Your task to perform on an android device: What's the news this evening? Image 0: 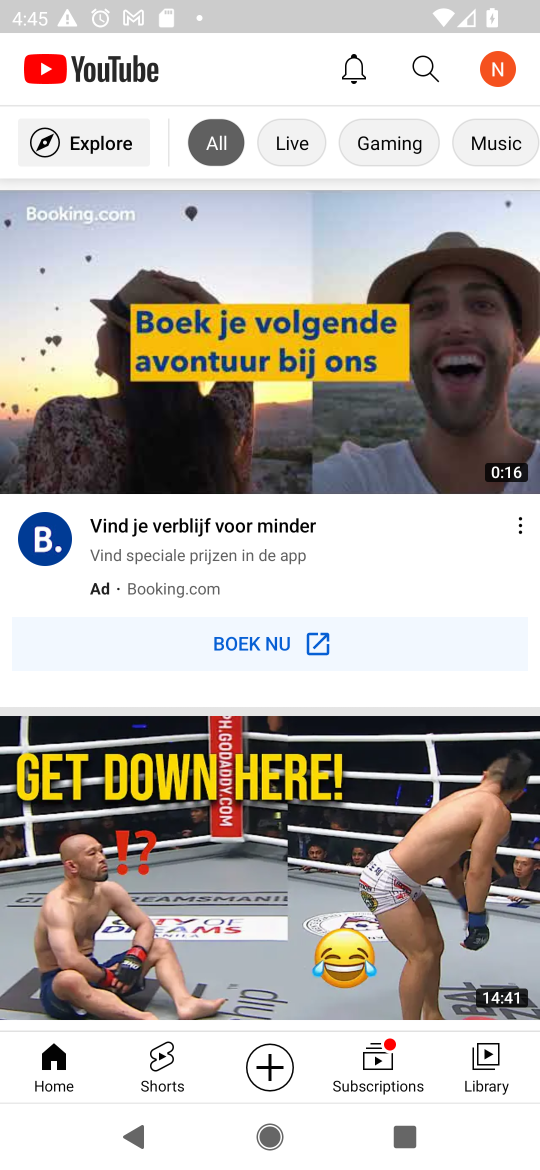
Step 0: press home button
Your task to perform on an android device: What's the news this evening? Image 1: 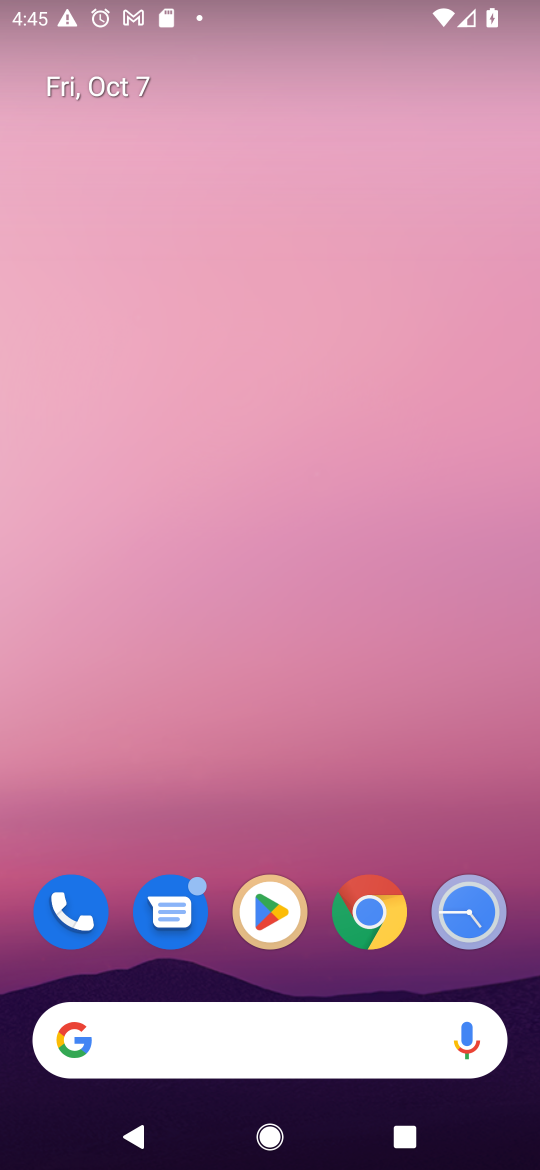
Step 1: drag from (179, 830) to (244, 360)
Your task to perform on an android device: What's the news this evening? Image 2: 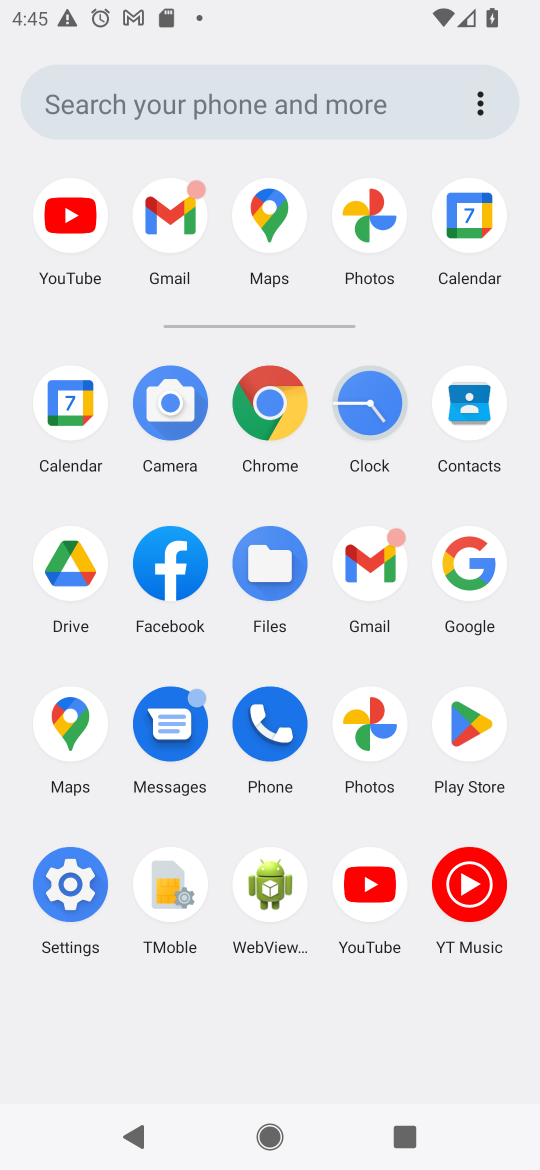
Step 2: click (470, 589)
Your task to perform on an android device: What's the news this evening? Image 3: 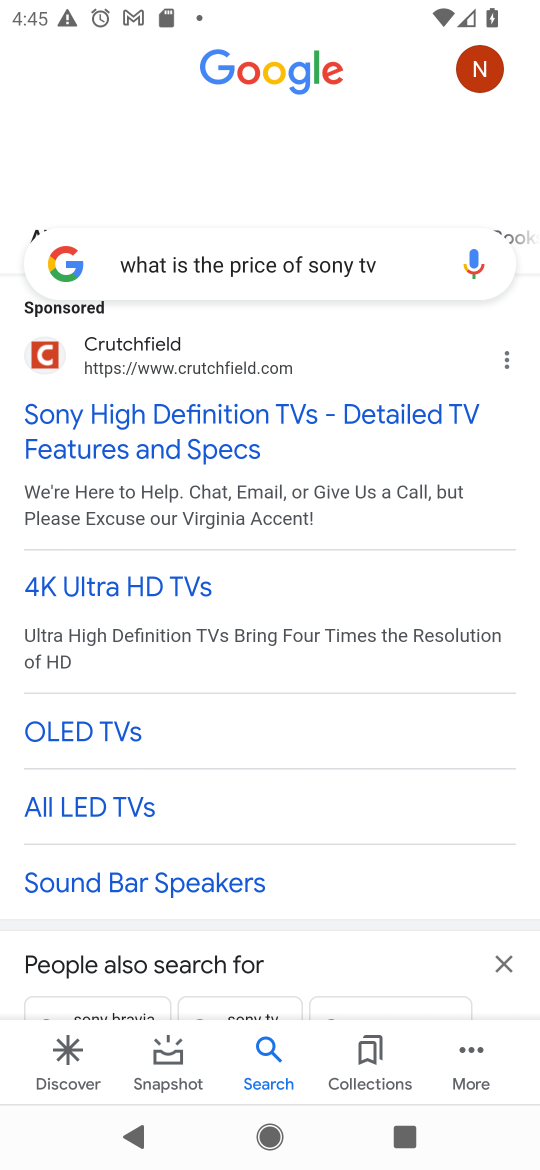
Step 3: click (366, 245)
Your task to perform on an android device: What's the news this evening? Image 4: 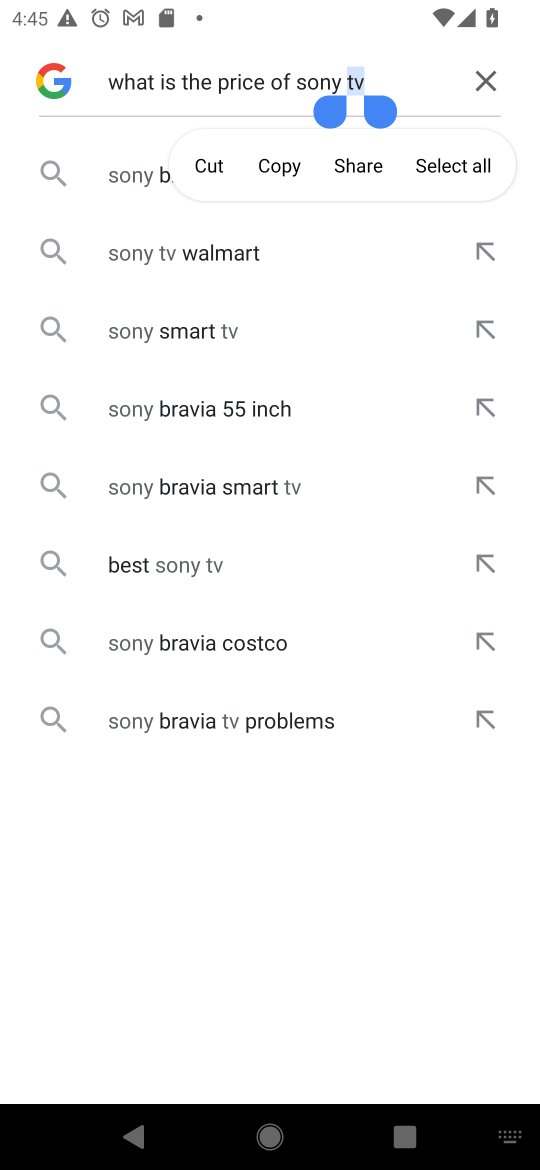
Step 4: click (469, 90)
Your task to perform on an android device: What's the news this evening? Image 5: 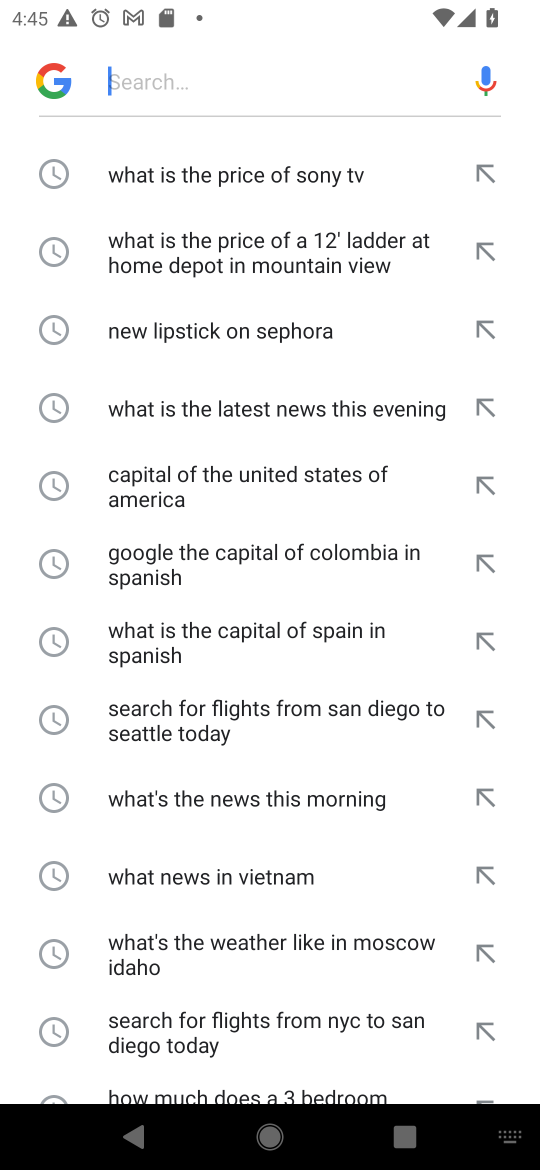
Step 5: click (214, 50)
Your task to perform on an android device: What's the news this evening? Image 6: 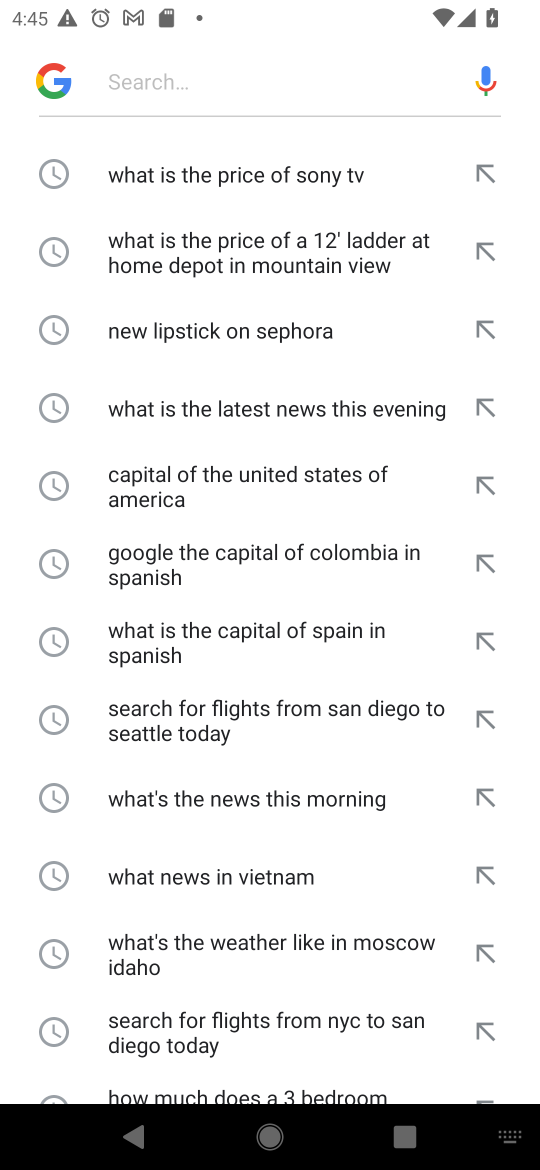
Step 6: type "L"
Your task to perform on an android device: What's the news this evening? Image 7: 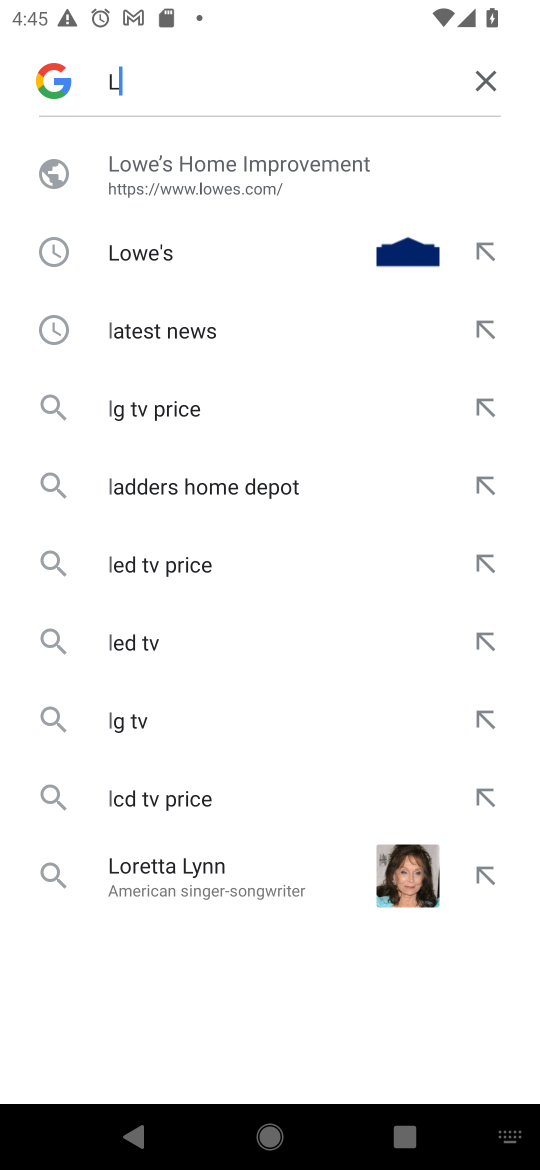
Step 7: click (497, 77)
Your task to perform on an android device: What's the news this evening? Image 8: 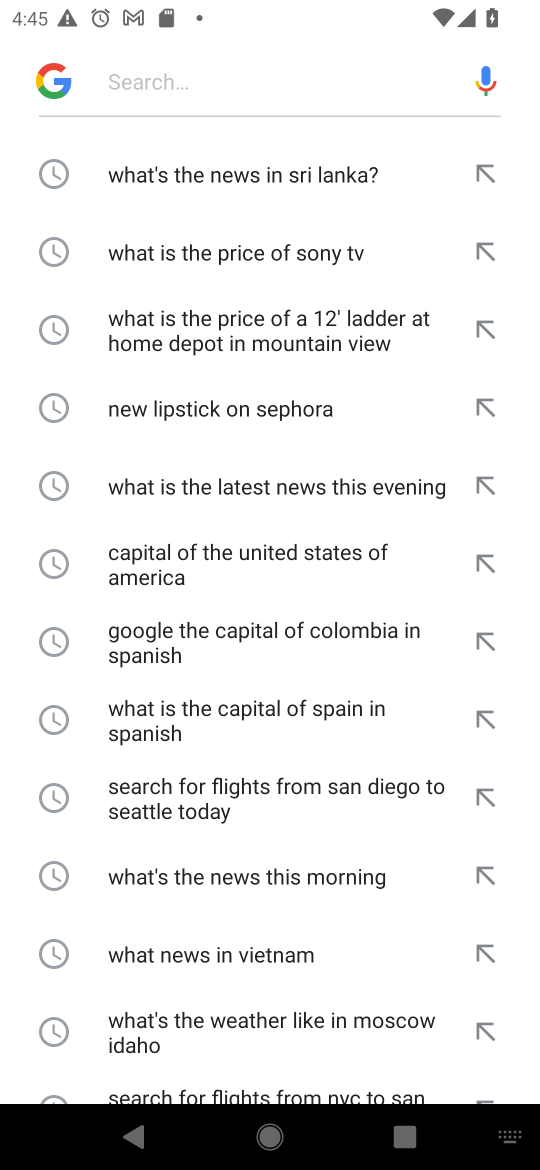
Step 8: click (242, 83)
Your task to perform on an android device: What's the news this evening? Image 9: 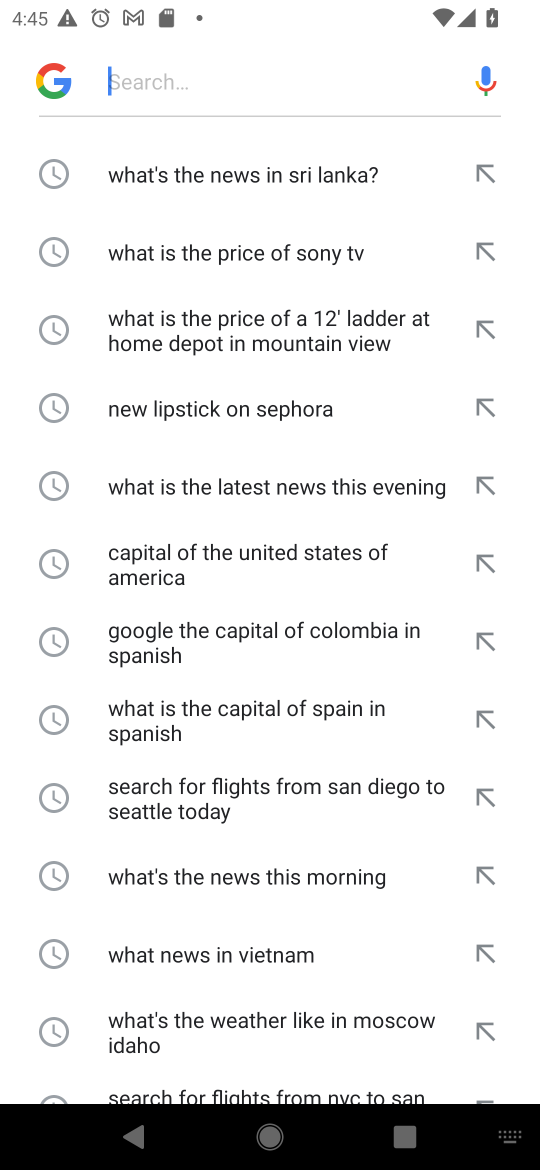
Step 9: click (232, 61)
Your task to perform on an android device: What's the news this evening? Image 10: 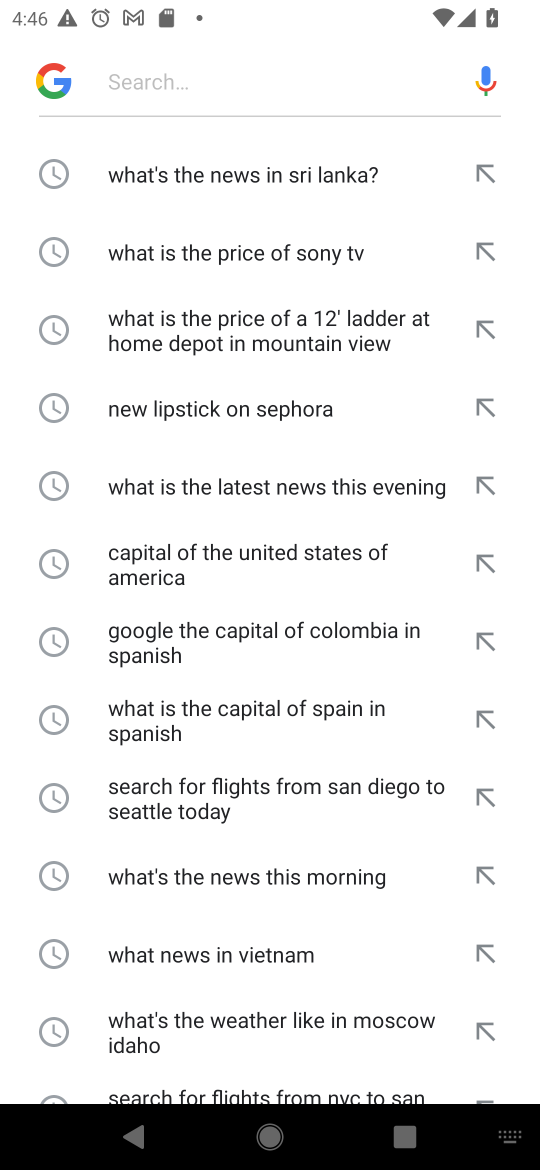
Step 10: type "What's the news this evening? "
Your task to perform on an android device: What's the news this evening? Image 11: 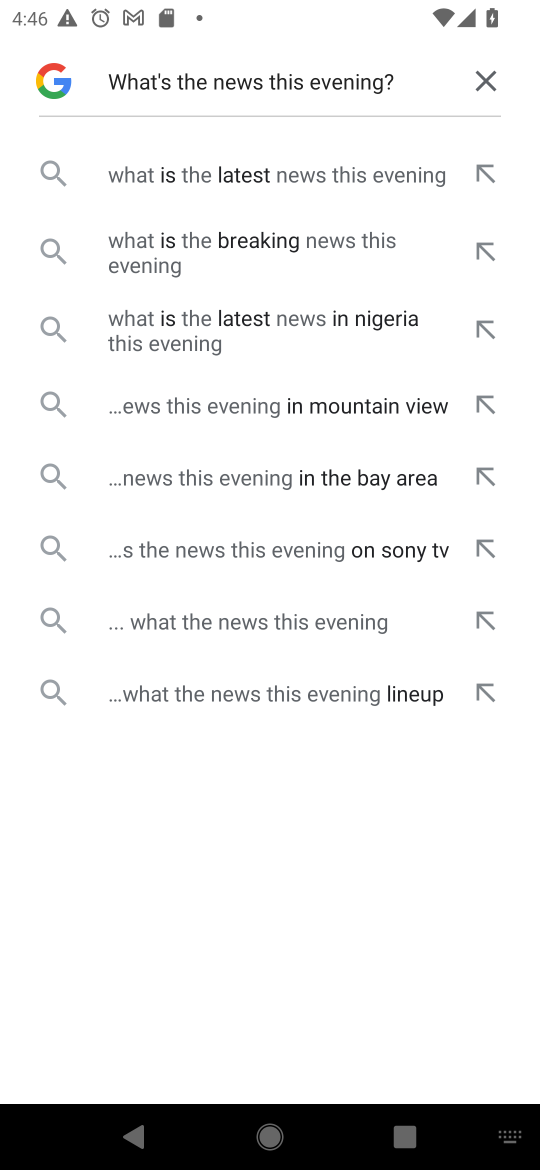
Step 11: click (307, 174)
Your task to perform on an android device: What's the news this evening? Image 12: 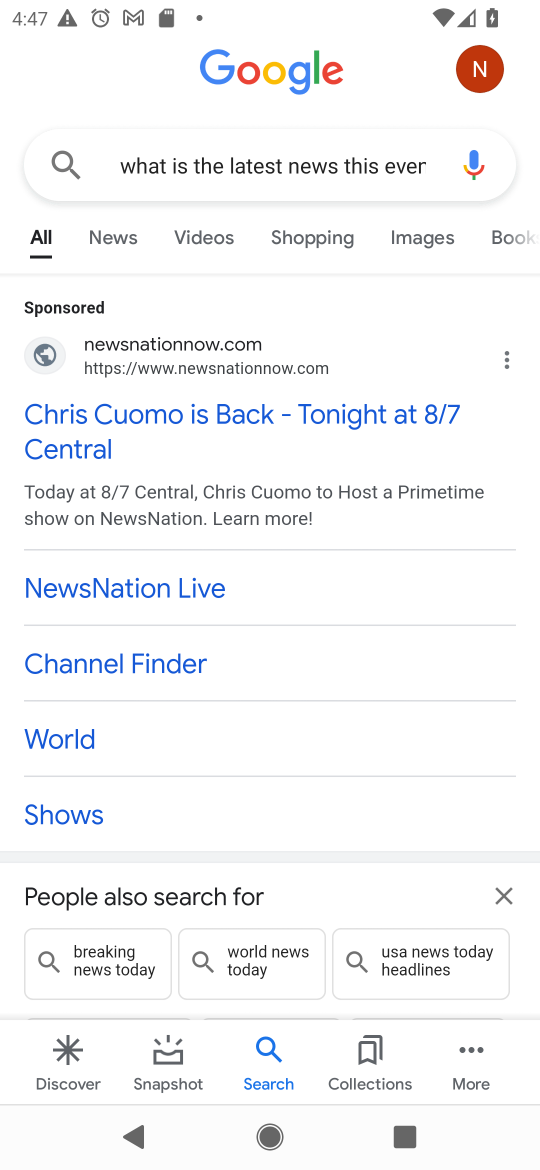
Step 12: drag from (205, 761) to (275, 277)
Your task to perform on an android device: What's the news this evening? Image 13: 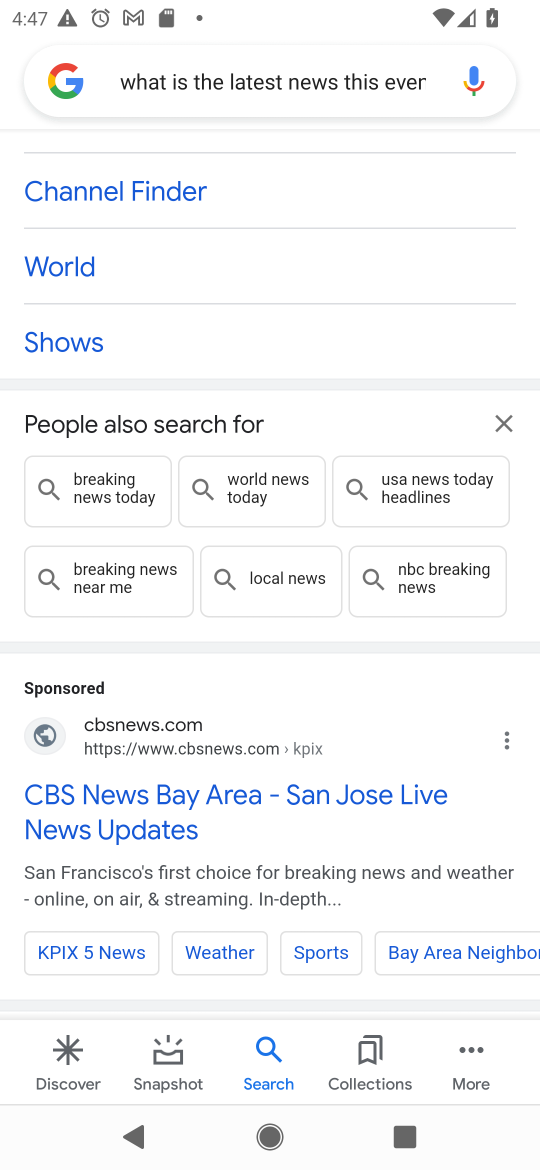
Step 13: drag from (163, 895) to (215, 655)
Your task to perform on an android device: What's the news this evening? Image 14: 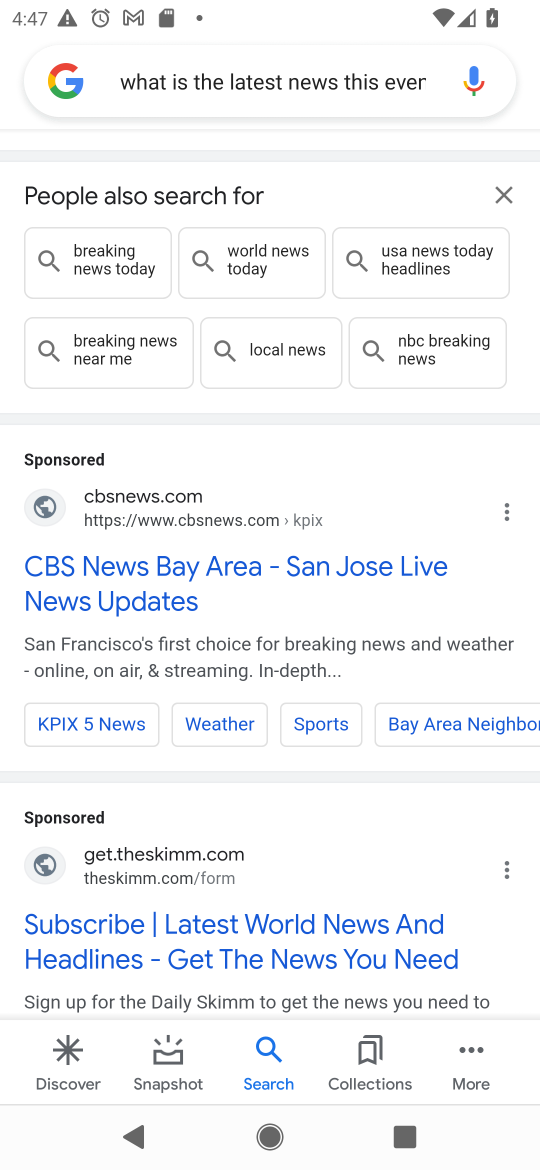
Step 14: click (135, 603)
Your task to perform on an android device: What's the news this evening? Image 15: 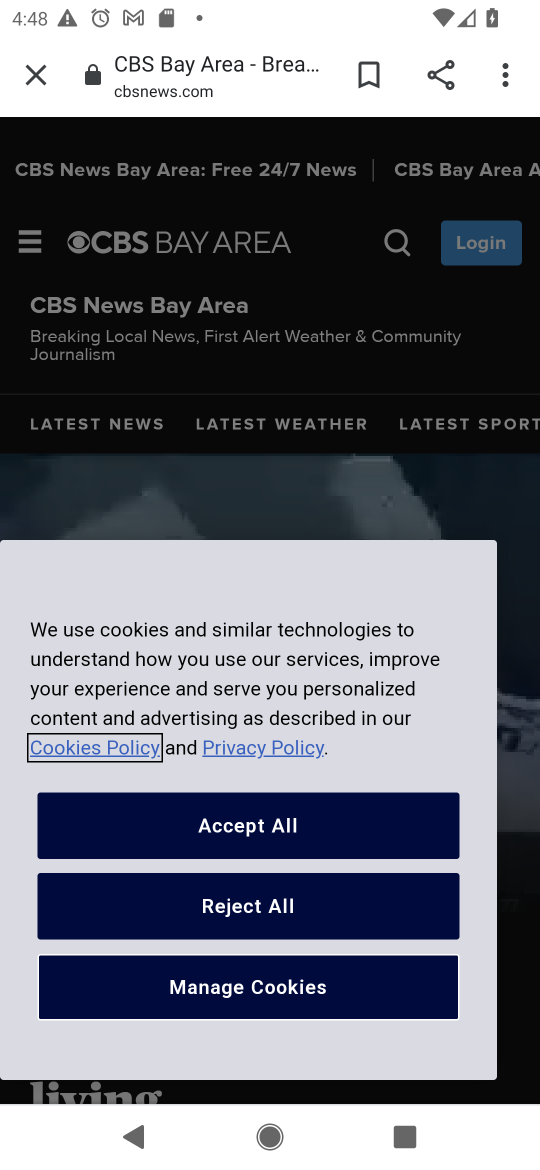
Step 15: click (312, 796)
Your task to perform on an android device: What's the news this evening? Image 16: 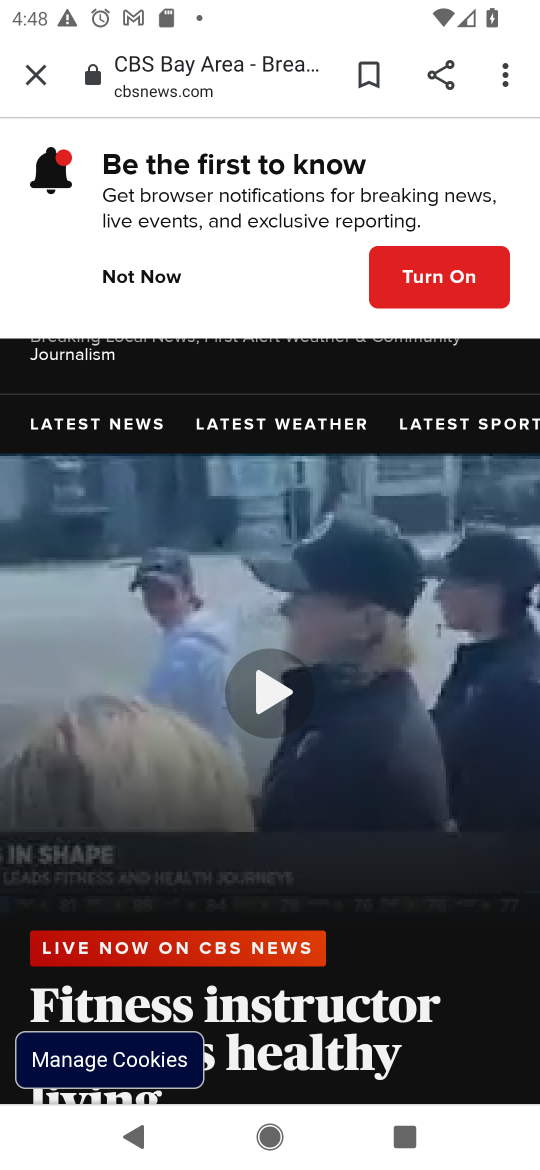
Step 16: task complete